Your task to perform on an android device: set an alarm Image 0: 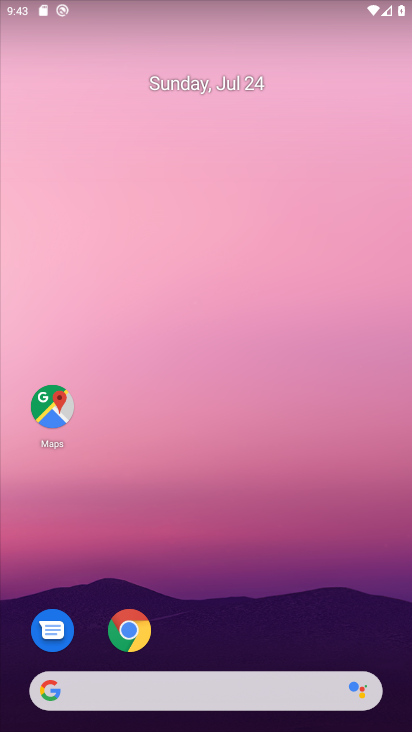
Step 0: drag from (201, 667) to (219, 36)
Your task to perform on an android device: set an alarm Image 1: 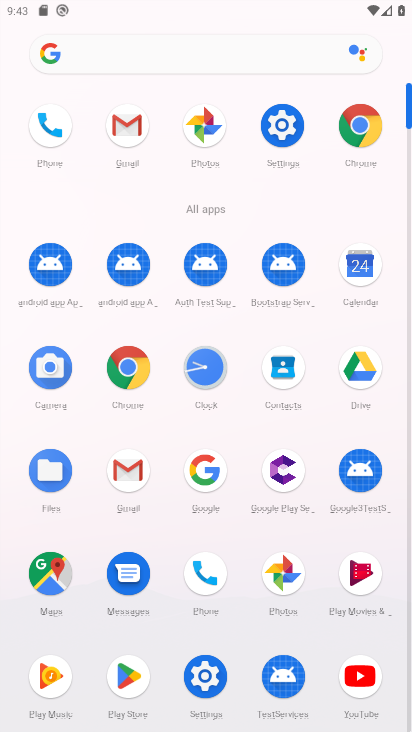
Step 1: click (218, 363)
Your task to perform on an android device: set an alarm Image 2: 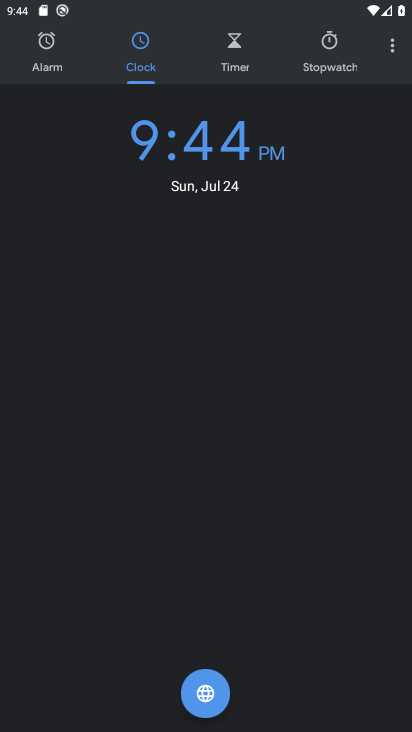
Step 2: click (59, 59)
Your task to perform on an android device: set an alarm Image 3: 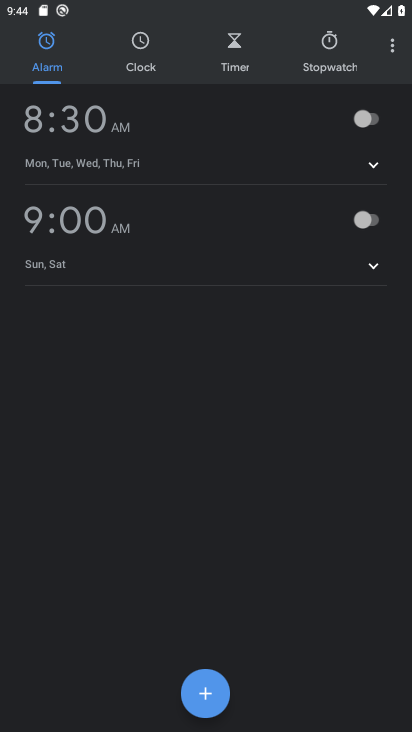
Step 3: click (369, 125)
Your task to perform on an android device: set an alarm Image 4: 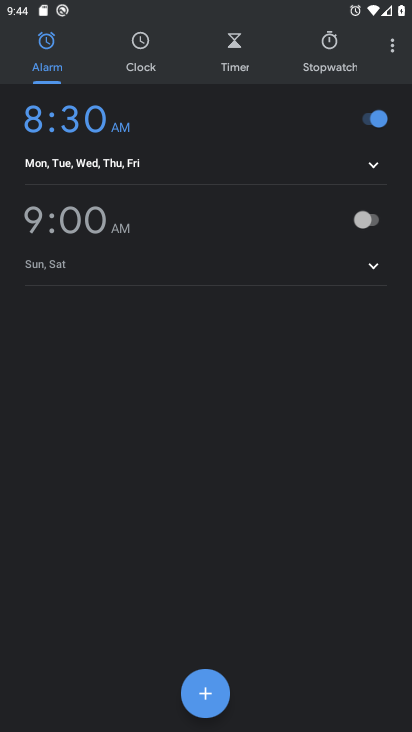
Step 4: task complete